Your task to perform on an android device: What's the weather going to be tomorrow? Image 0: 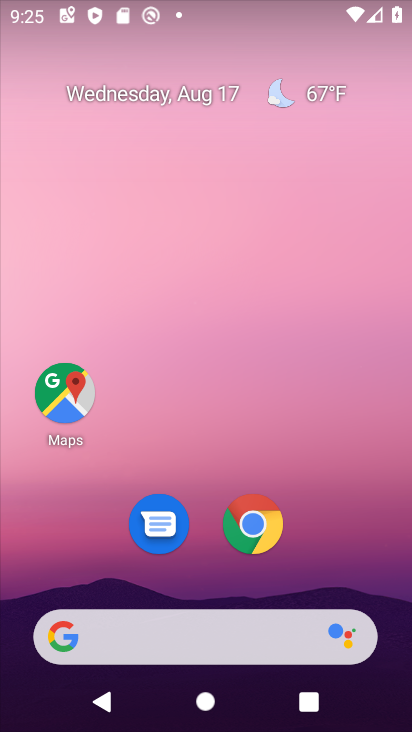
Step 0: click (325, 92)
Your task to perform on an android device: What's the weather going to be tomorrow? Image 1: 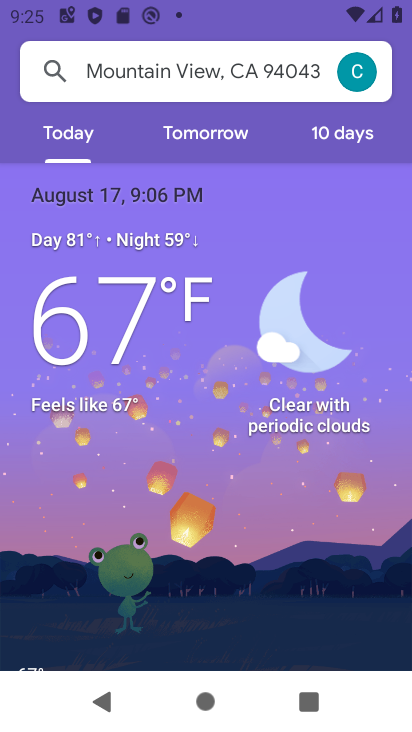
Step 1: click (242, 140)
Your task to perform on an android device: What's the weather going to be tomorrow? Image 2: 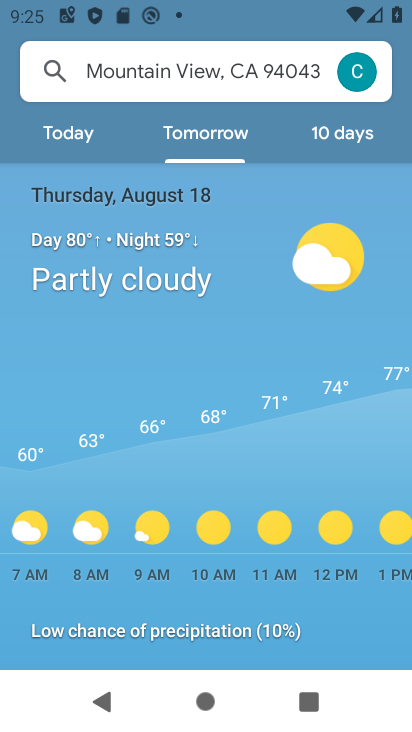
Step 2: task complete